Your task to perform on an android device: Do I have any events tomorrow? Image 0: 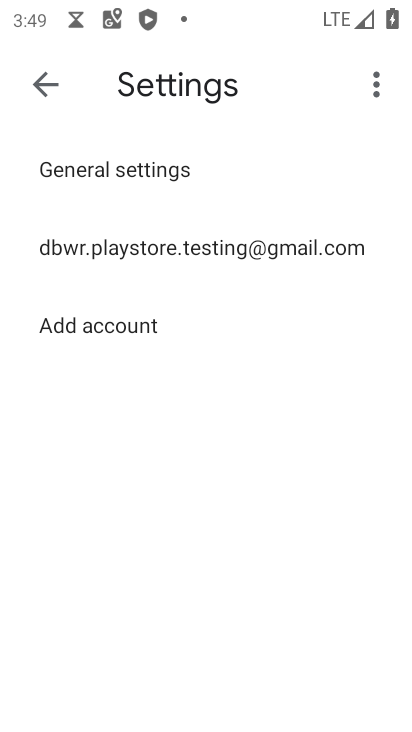
Step 0: press home button
Your task to perform on an android device: Do I have any events tomorrow? Image 1: 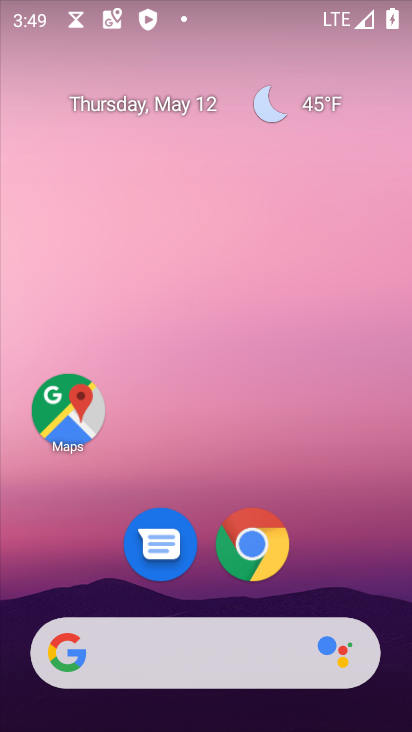
Step 1: drag from (365, 558) to (339, 0)
Your task to perform on an android device: Do I have any events tomorrow? Image 2: 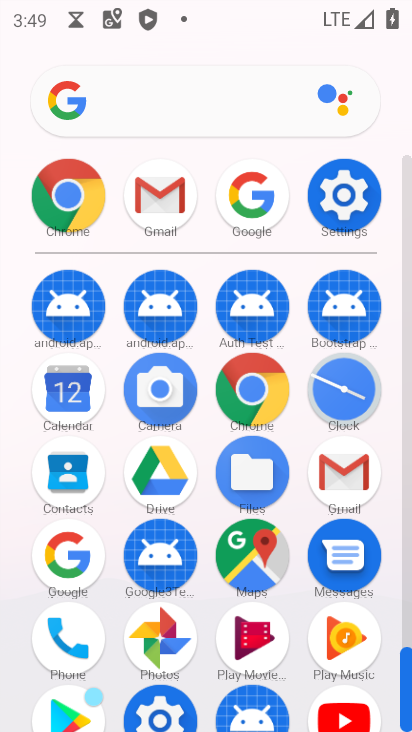
Step 2: click (56, 397)
Your task to perform on an android device: Do I have any events tomorrow? Image 3: 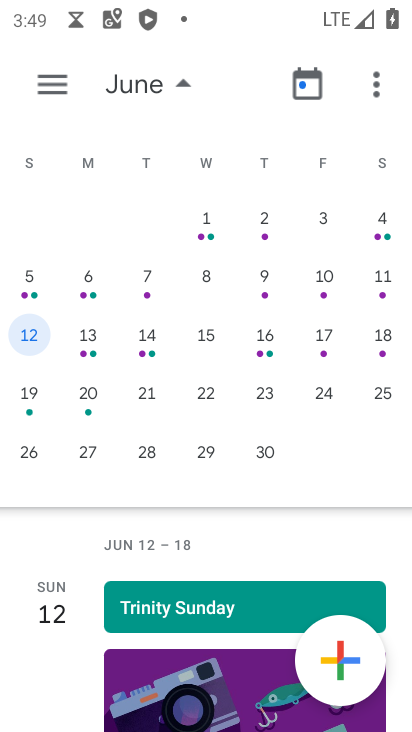
Step 3: drag from (74, 342) to (390, 321)
Your task to perform on an android device: Do I have any events tomorrow? Image 4: 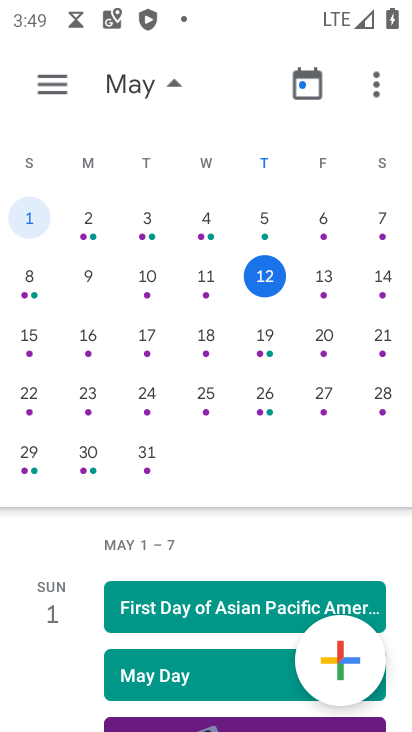
Step 4: click (320, 286)
Your task to perform on an android device: Do I have any events tomorrow? Image 5: 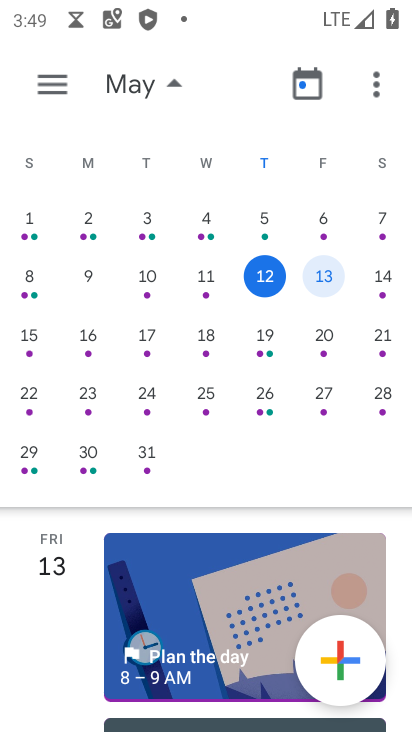
Step 5: task complete